Your task to perform on an android device: Clear the shopping cart on target. Image 0: 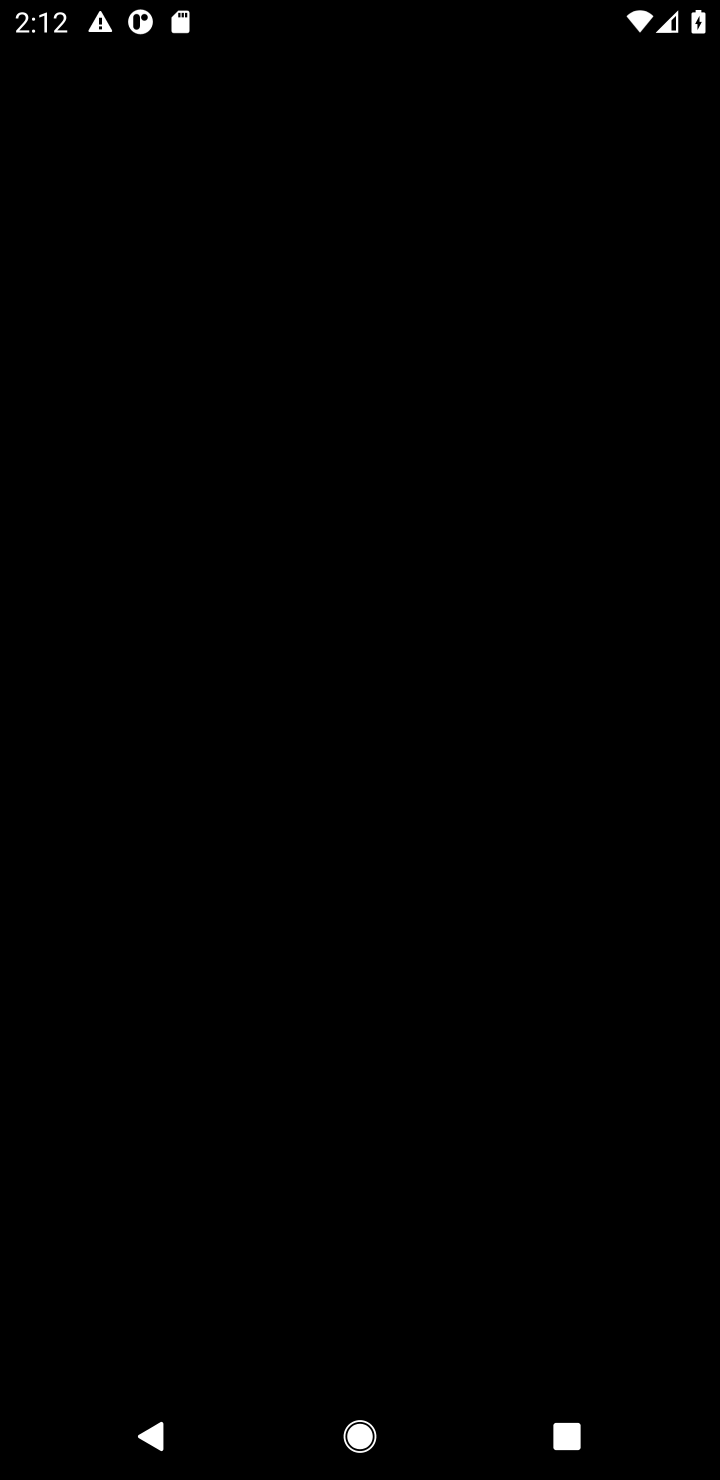
Step 0: press home button
Your task to perform on an android device: Clear the shopping cart on target. Image 1: 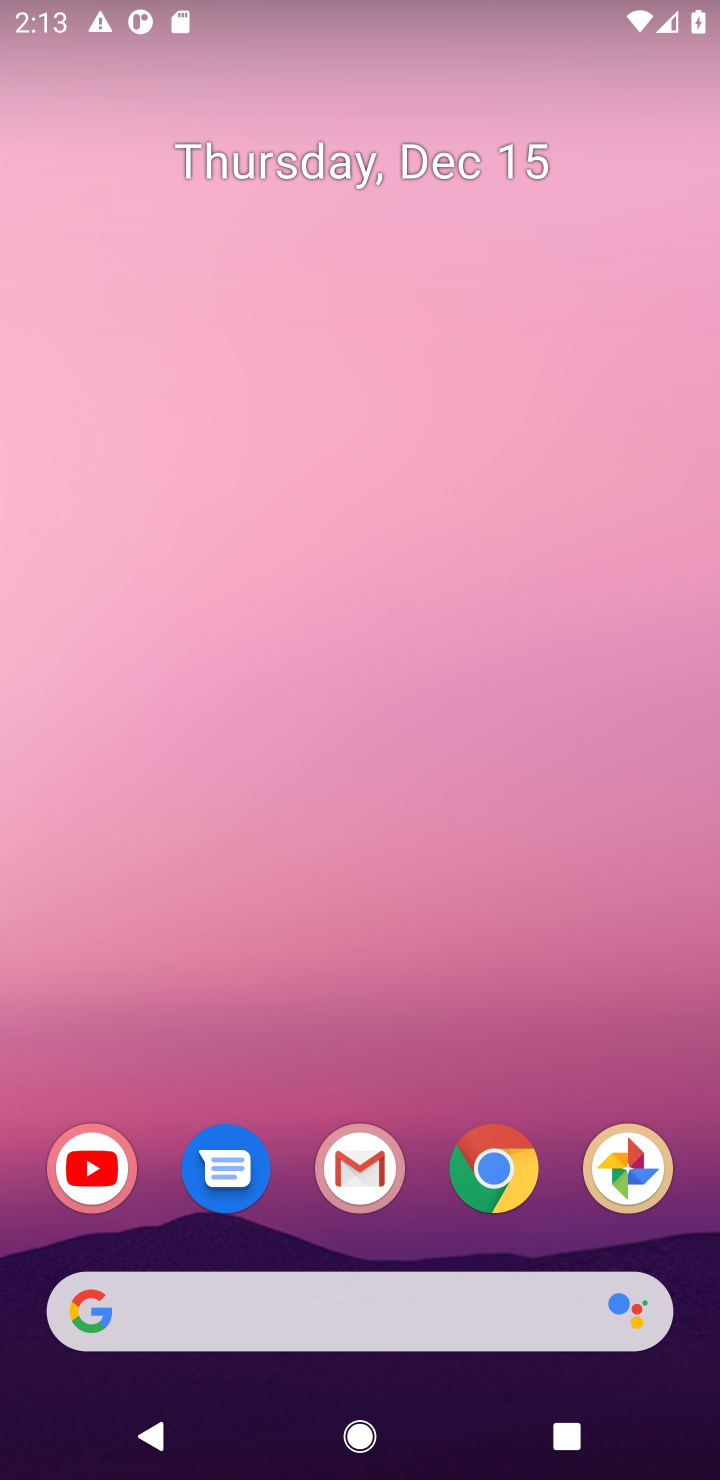
Step 1: click (487, 1140)
Your task to perform on an android device: Clear the shopping cart on target. Image 2: 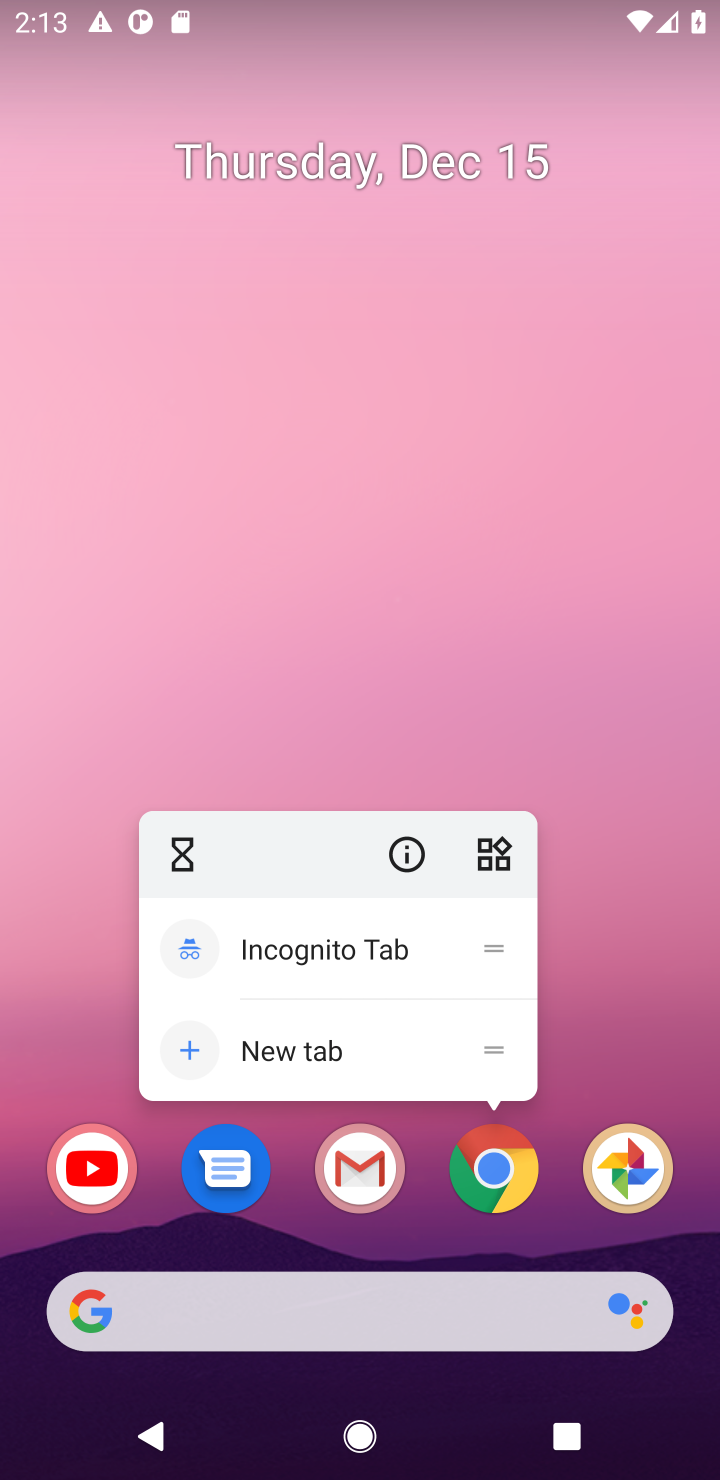
Step 2: click (487, 1140)
Your task to perform on an android device: Clear the shopping cart on target. Image 3: 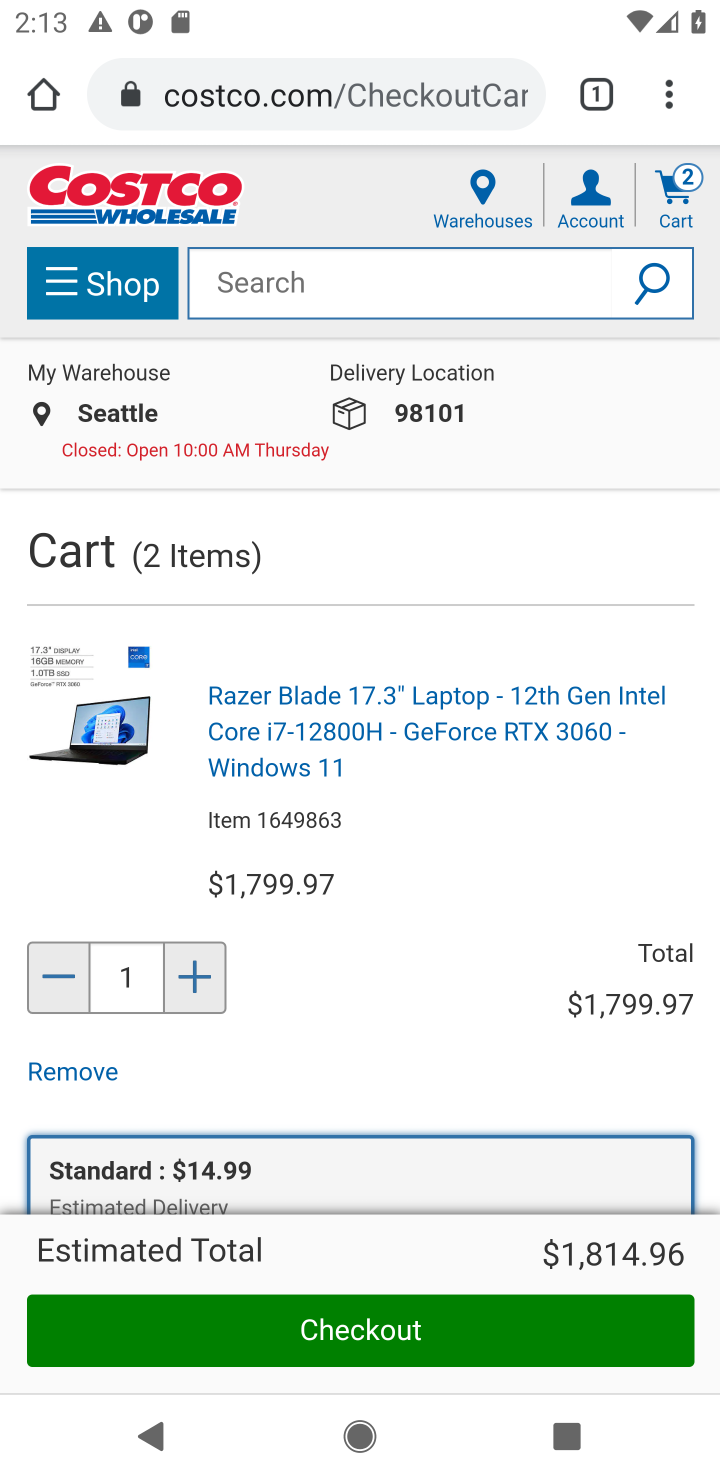
Step 3: click (445, 96)
Your task to perform on an android device: Clear the shopping cart on target. Image 4: 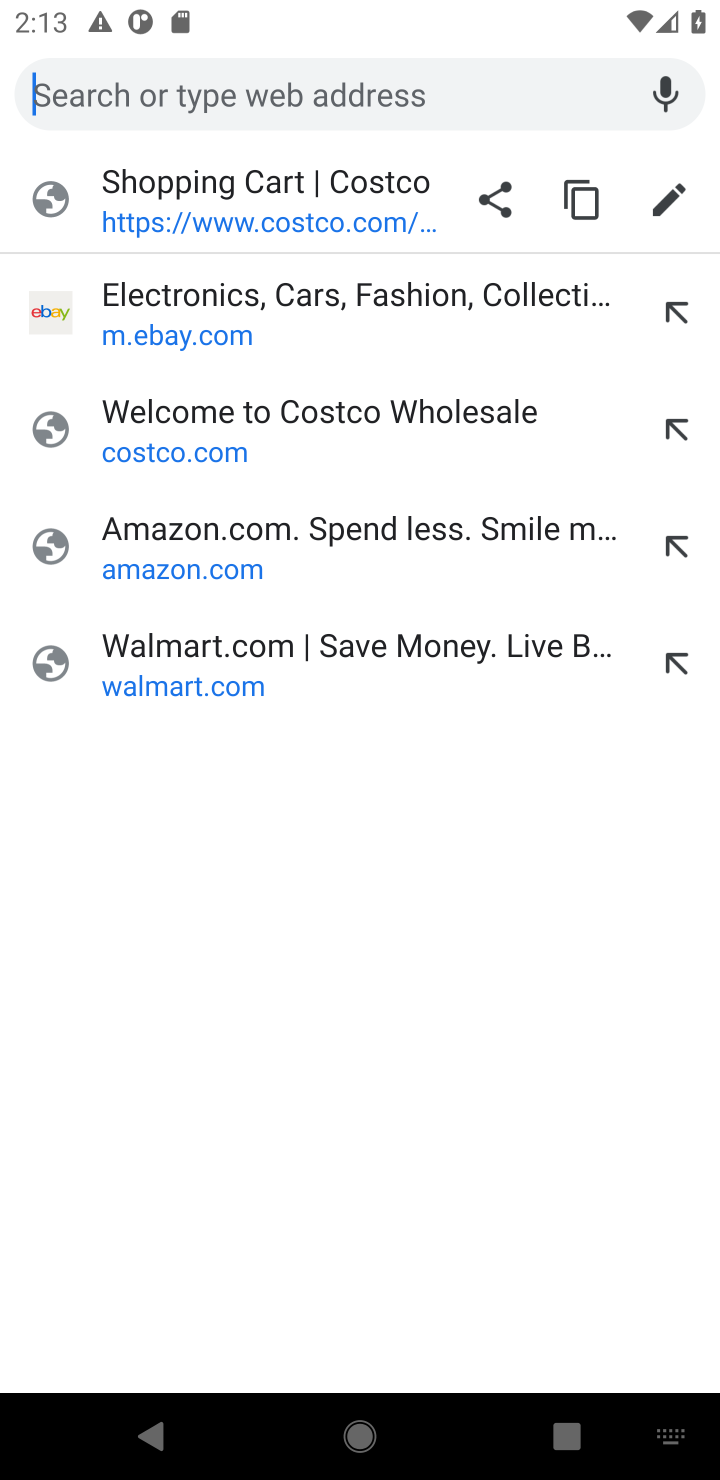
Step 4: press enter
Your task to perform on an android device: Clear the shopping cart on target. Image 5: 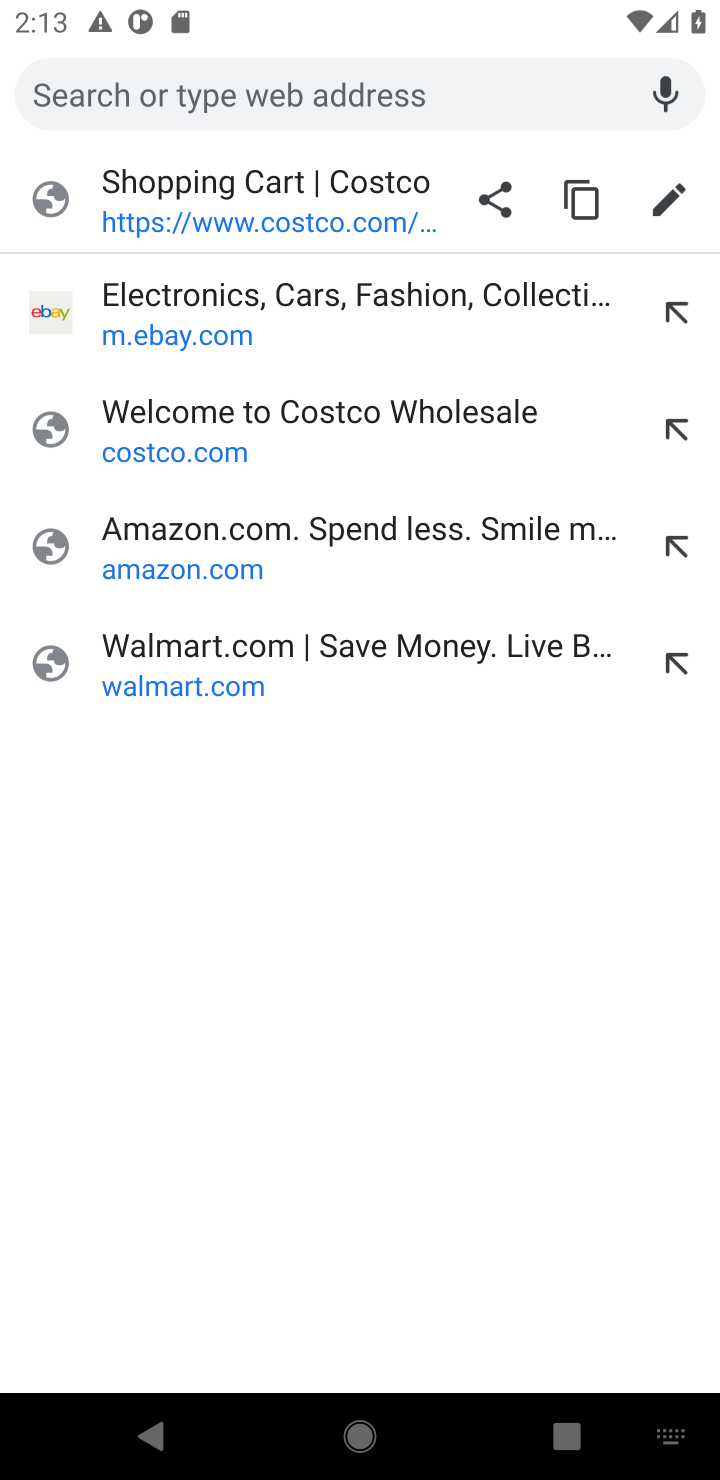
Step 5: type "target"
Your task to perform on an android device: Clear the shopping cart on target. Image 6: 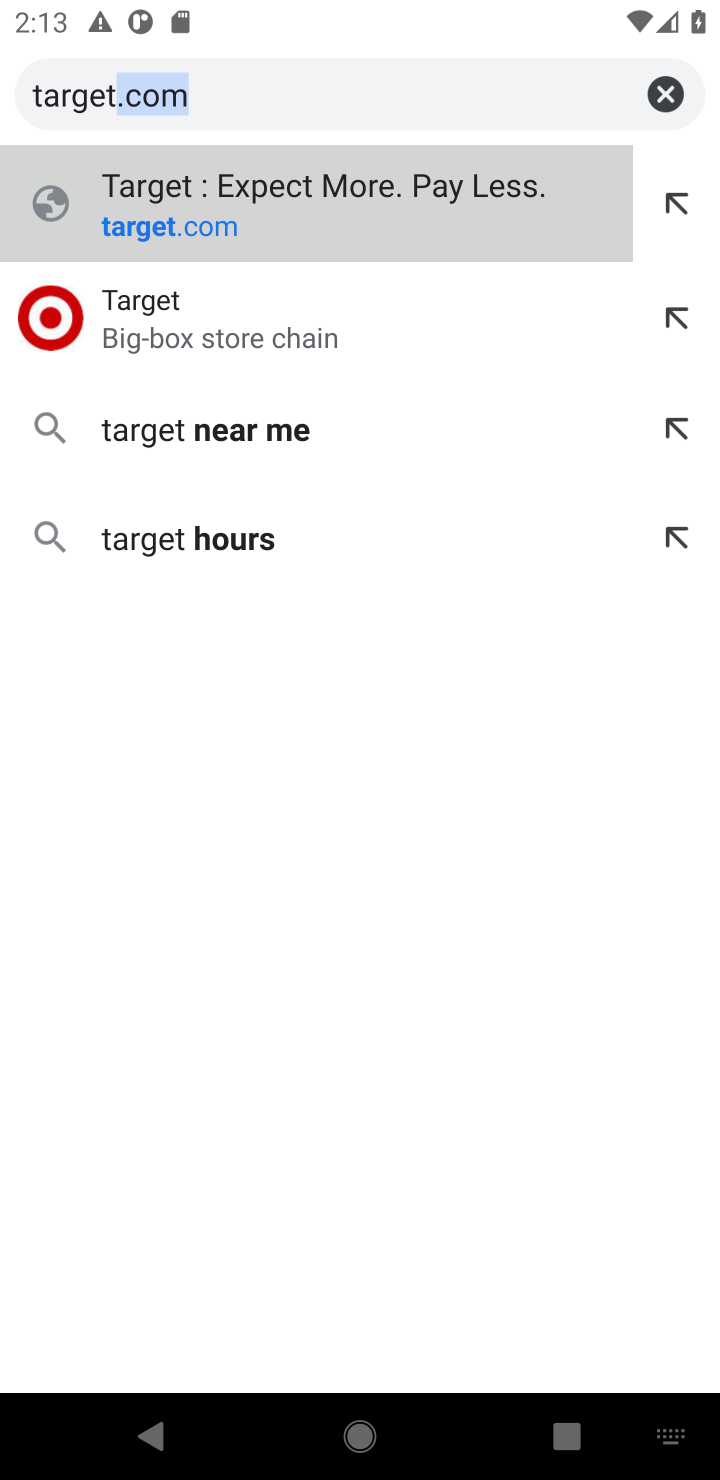
Step 6: click (311, 101)
Your task to perform on an android device: Clear the shopping cart on target. Image 7: 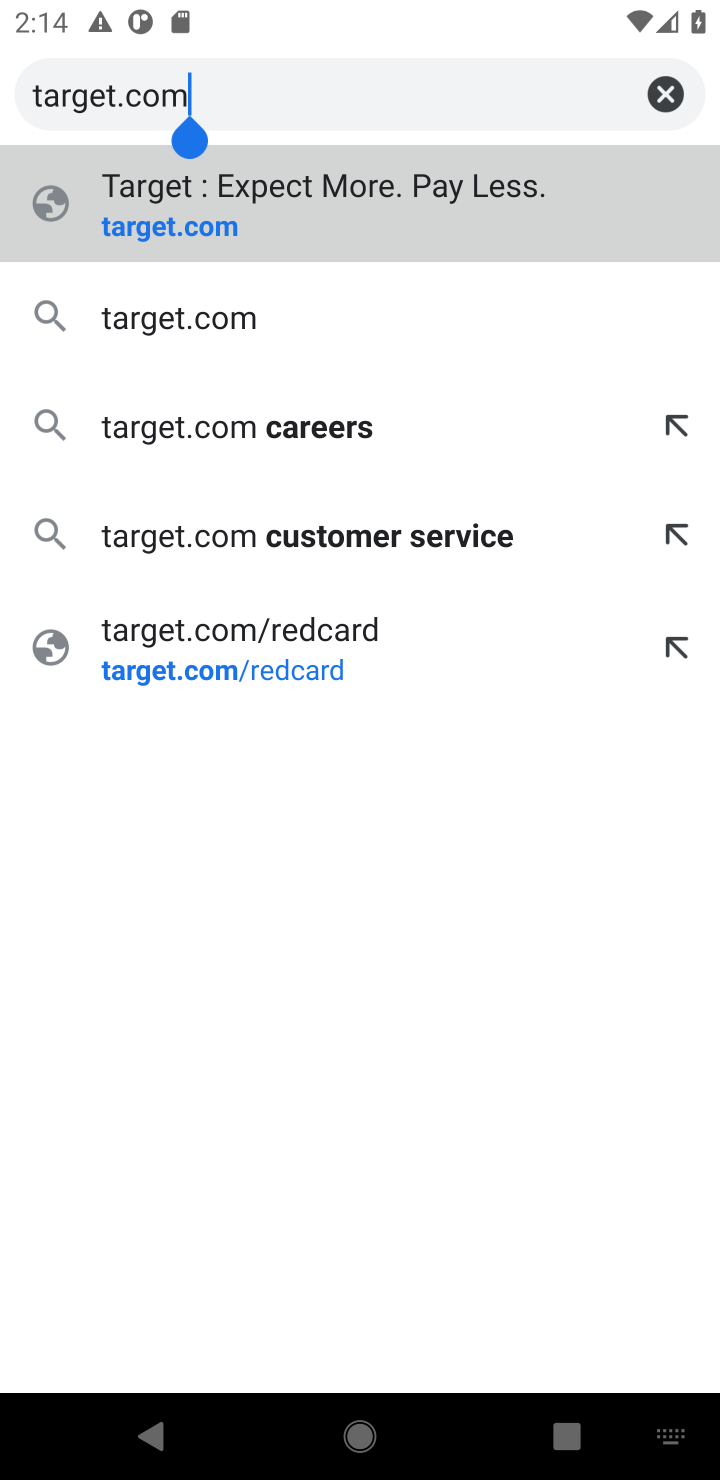
Step 7: click (161, 302)
Your task to perform on an android device: Clear the shopping cart on target. Image 8: 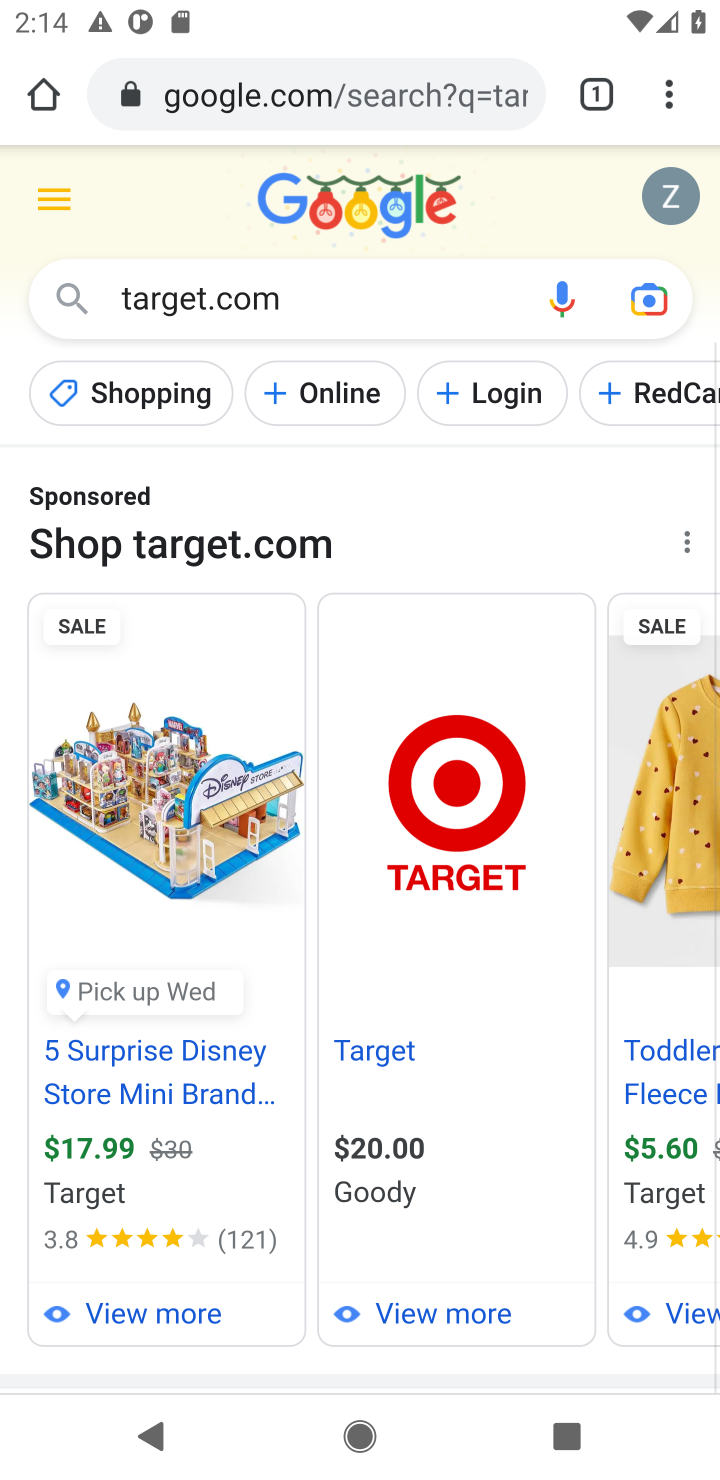
Step 8: drag from (317, 1266) to (374, 654)
Your task to perform on an android device: Clear the shopping cart on target. Image 9: 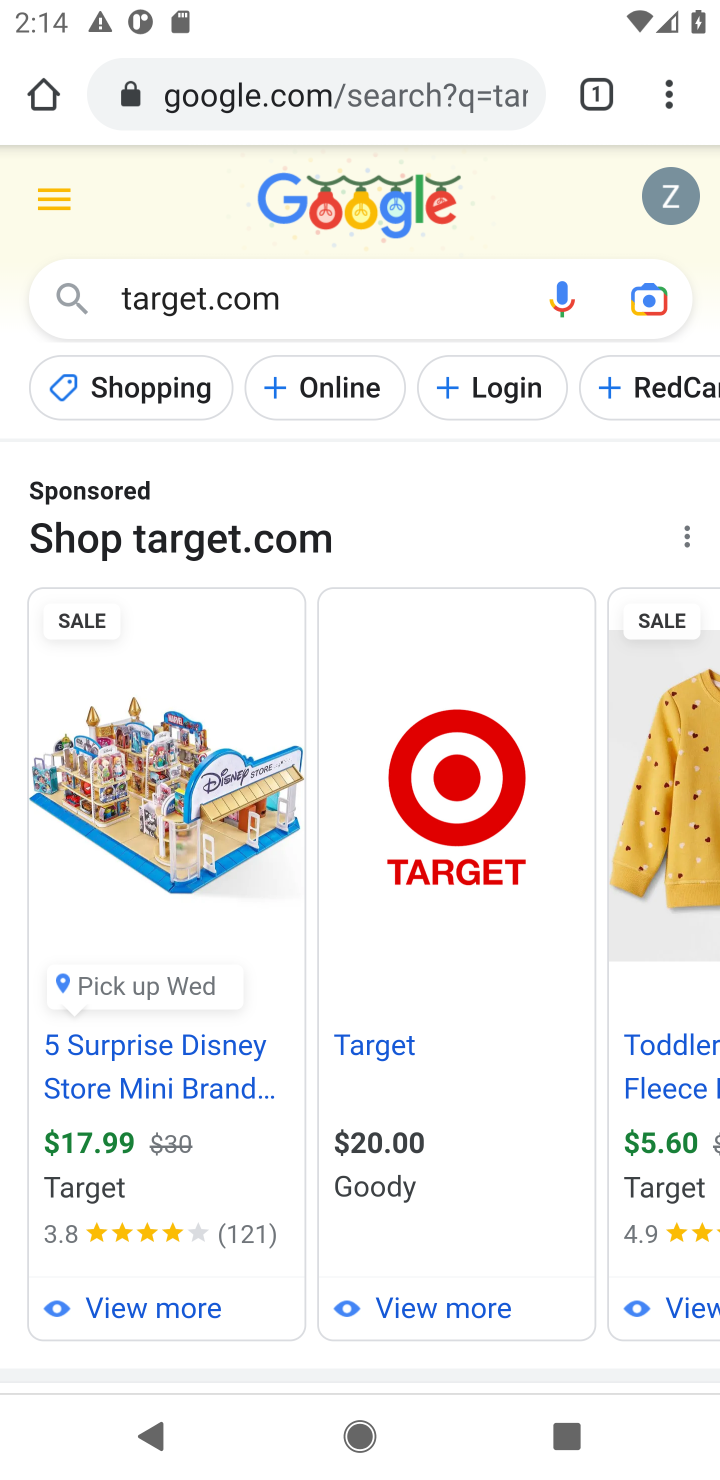
Step 9: drag from (264, 1143) to (313, 451)
Your task to perform on an android device: Clear the shopping cart on target. Image 10: 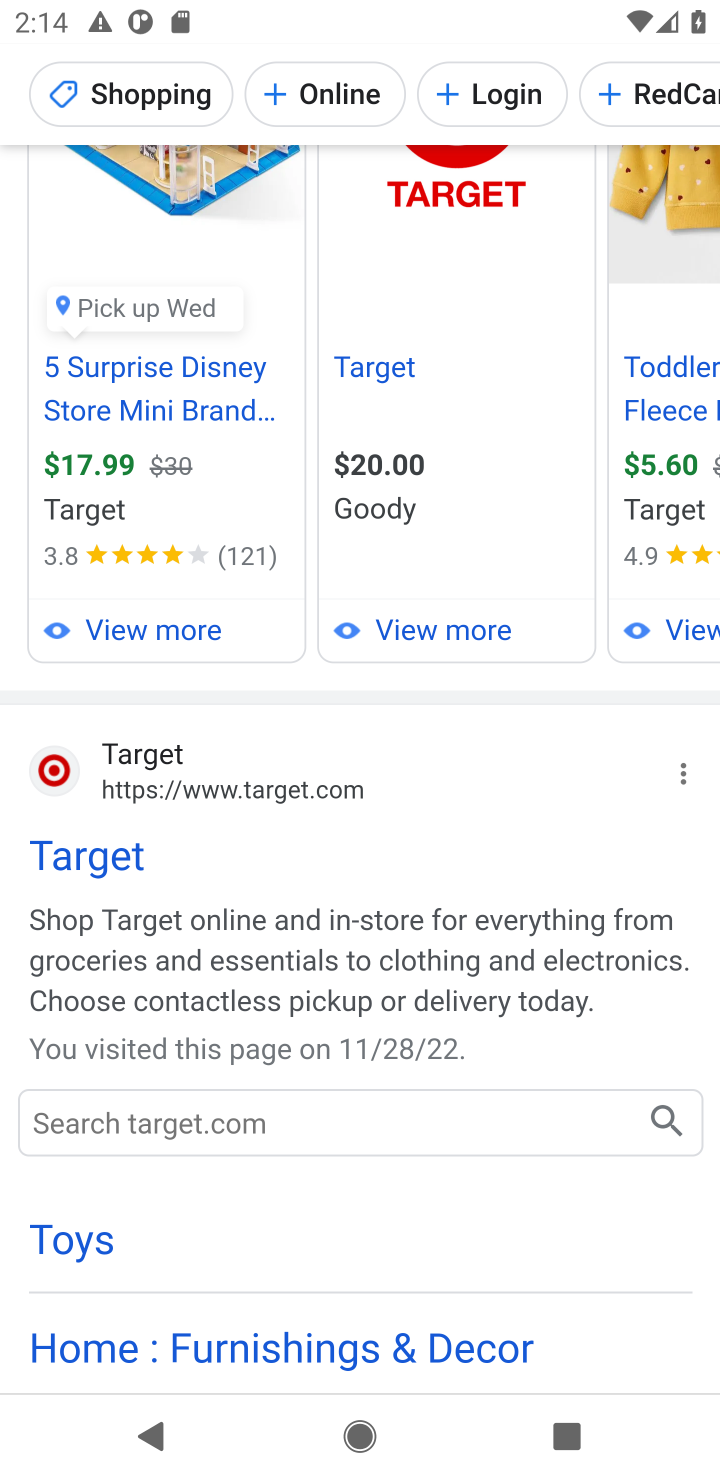
Step 10: click (198, 788)
Your task to perform on an android device: Clear the shopping cart on target. Image 11: 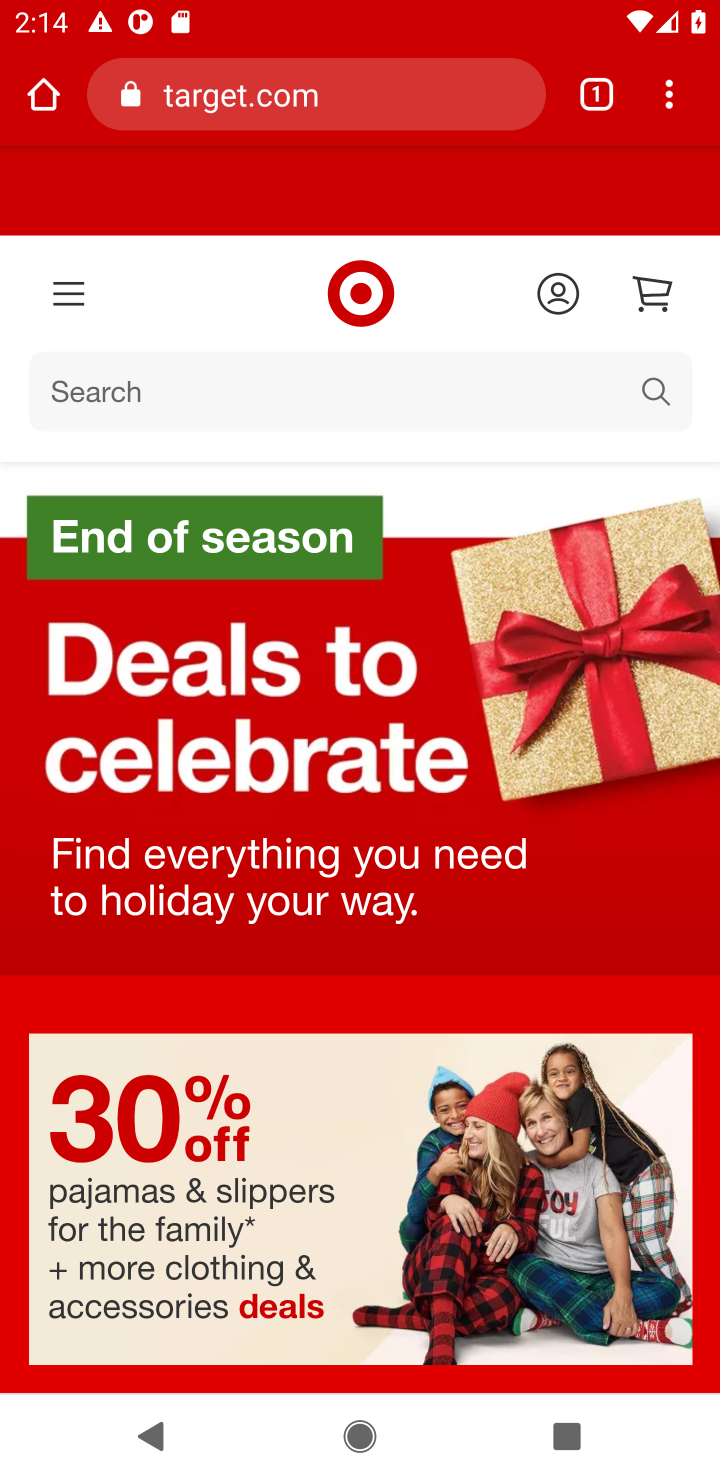
Step 11: click (658, 303)
Your task to perform on an android device: Clear the shopping cart on target. Image 12: 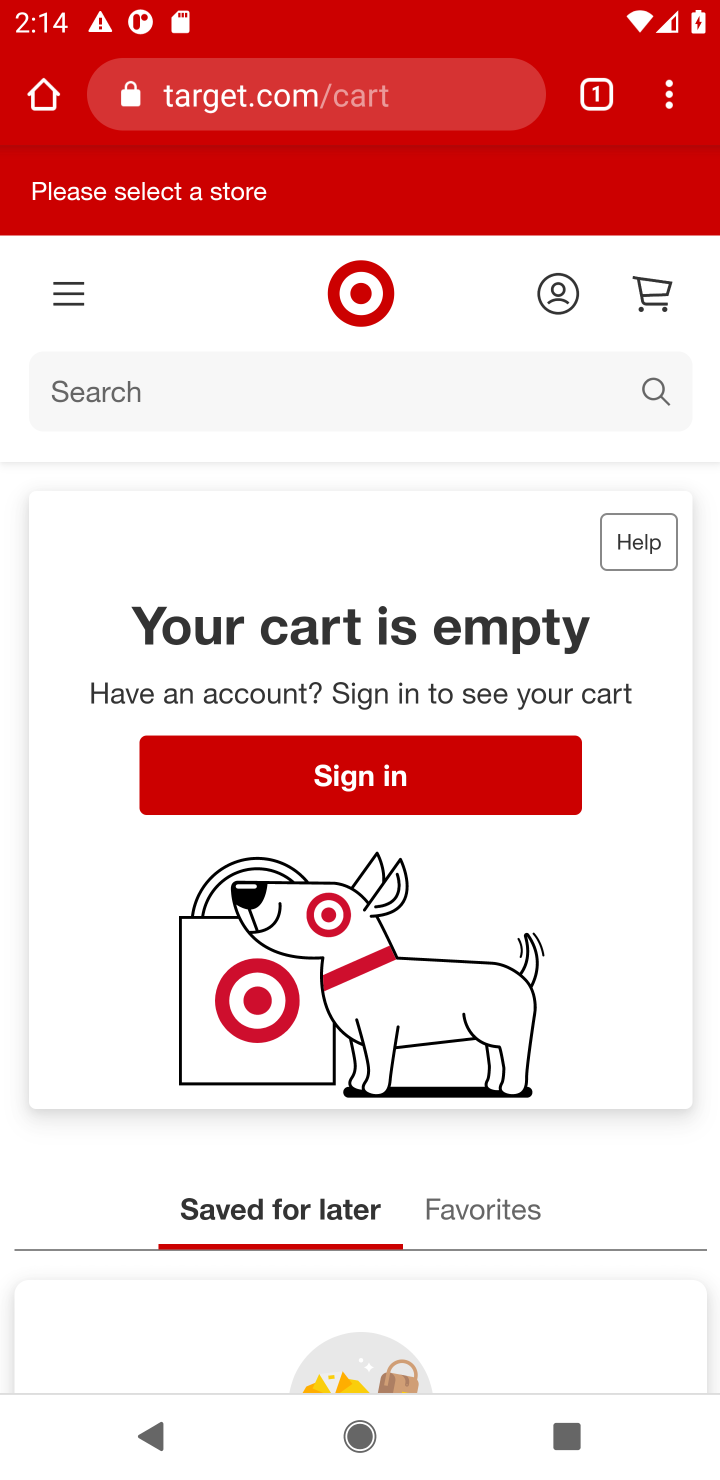
Step 12: click (644, 291)
Your task to perform on an android device: Clear the shopping cart on target. Image 13: 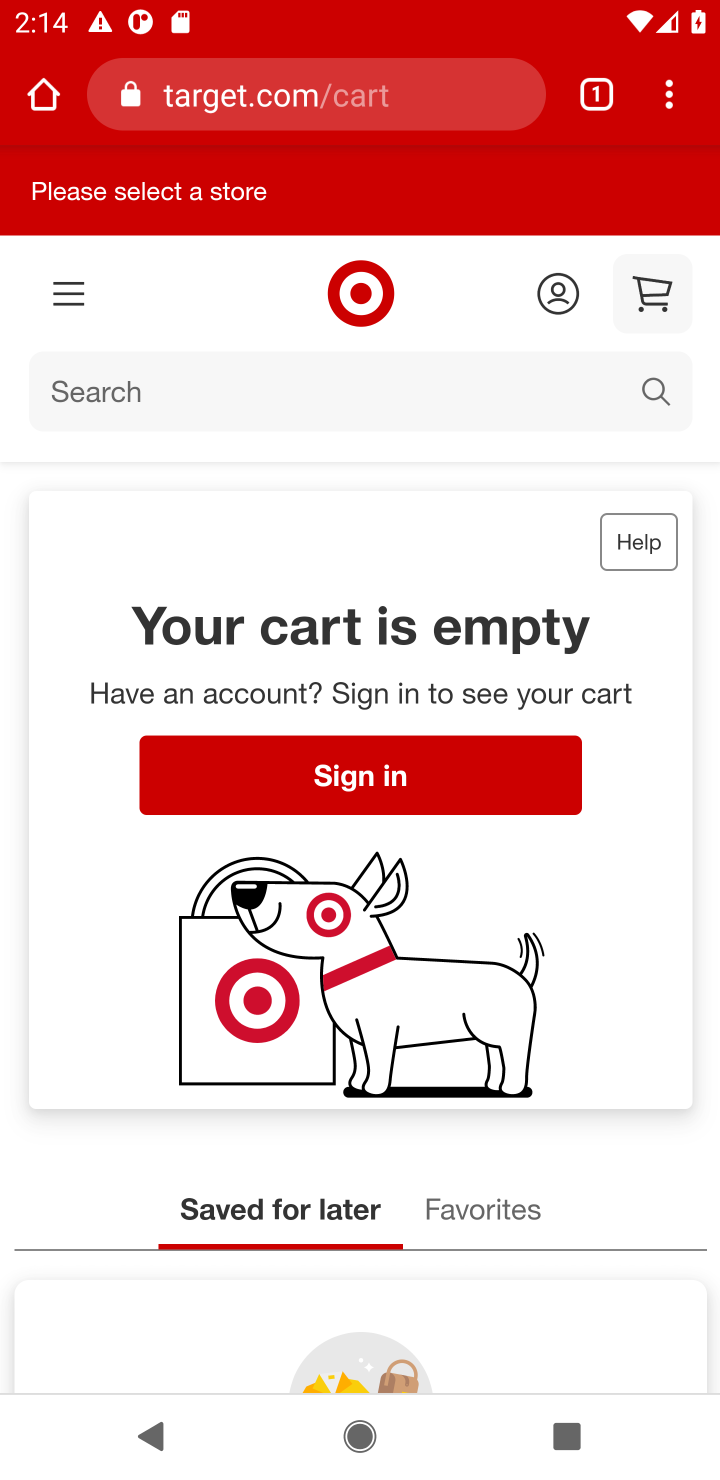
Step 13: task complete